Your task to perform on an android device: check the backup settings in the google photos Image 0: 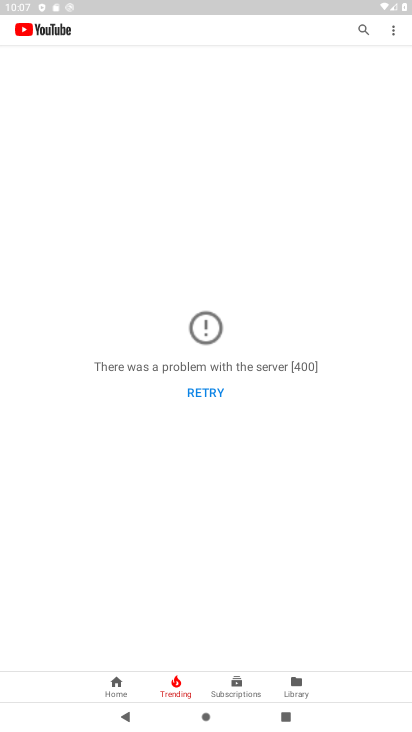
Step 0: press home button
Your task to perform on an android device: check the backup settings in the google photos Image 1: 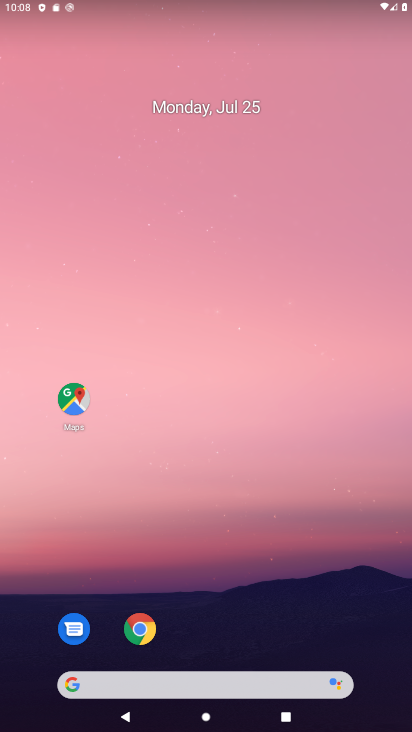
Step 1: drag from (233, 661) to (235, 58)
Your task to perform on an android device: check the backup settings in the google photos Image 2: 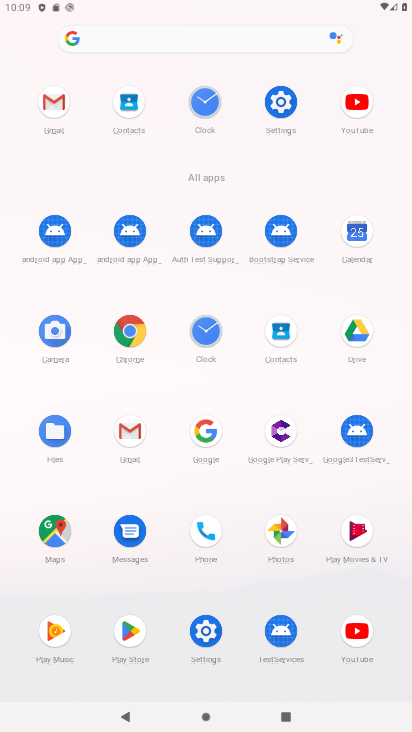
Step 2: click (275, 546)
Your task to perform on an android device: check the backup settings in the google photos Image 3: 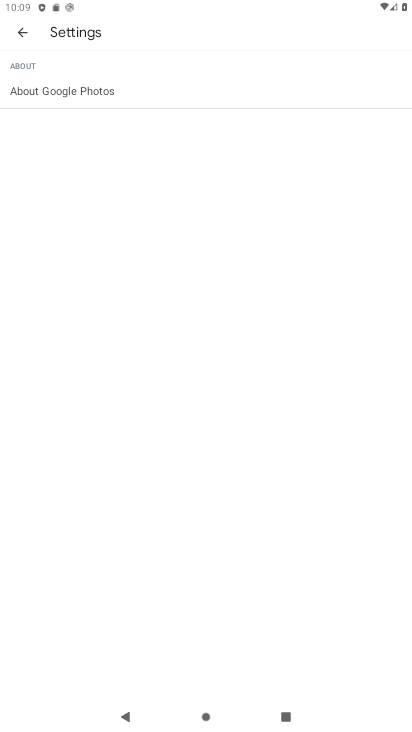
Step 3: click (20, 35)
Your task to perform on an android device: check the backup settings in the google photos Image 4: 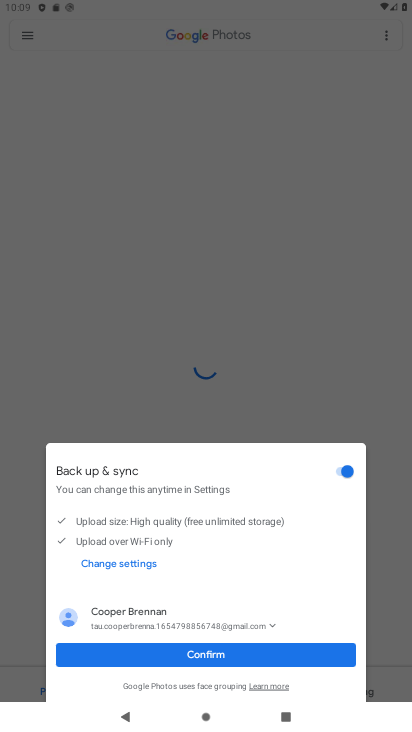
Step 4: click (208, 656)
Your task to perform on an android device: check the backup settings in the google photos Image 5: 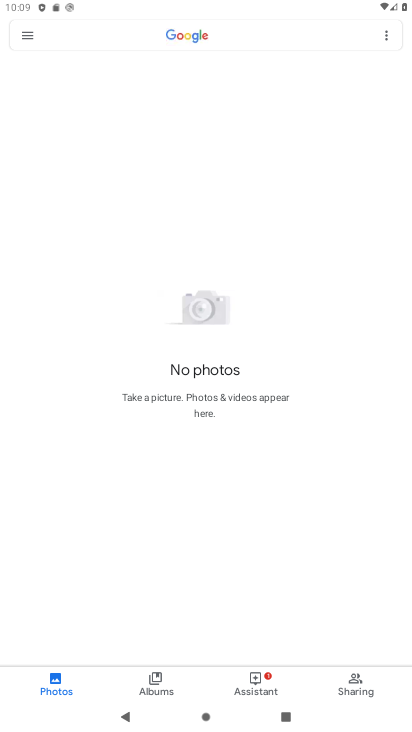
Step 5: click (27, 38)
Your task to perform on an android device: check the backup settings in the google photos Image 6: 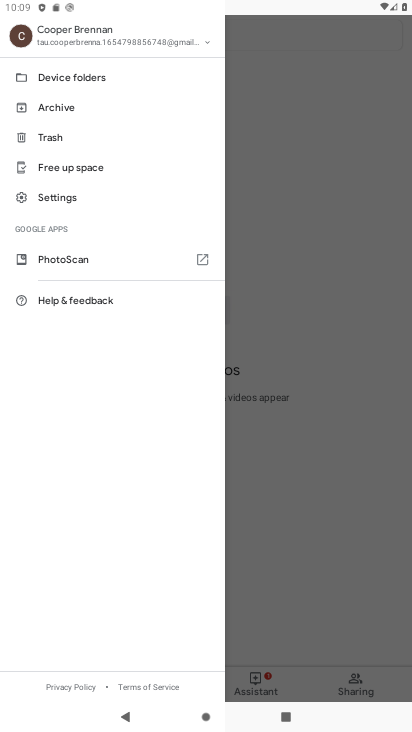
Step 6: click (54, 201)
Your task to perform on an android device: check the backup settings in the google photos Image 7: 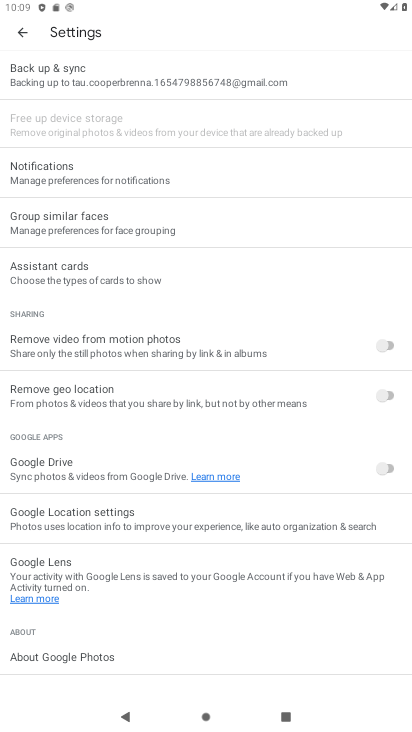
Step 7: click (111, 87)
Your task to perform on an android device: check the backup settings in the google photos Image 8: 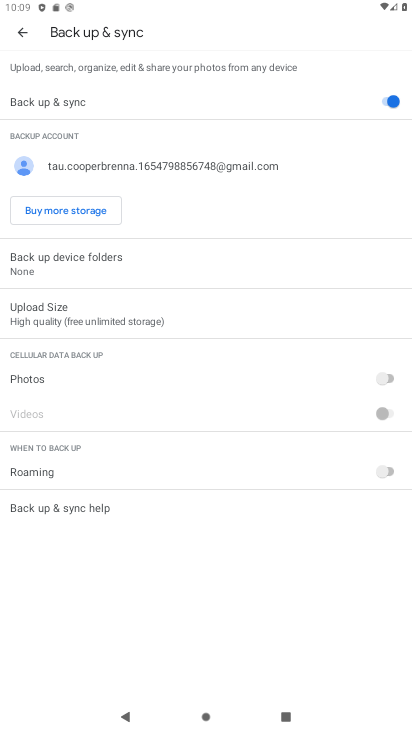
Step 8: task complete